Your task to perform on an android device: turn off wifi Image 0: 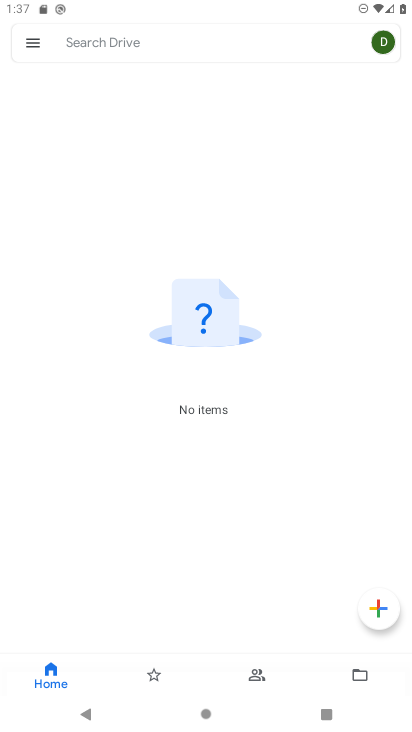
Step 0: press home button
Your task to perform on an android device: turn off wifi Image 1: 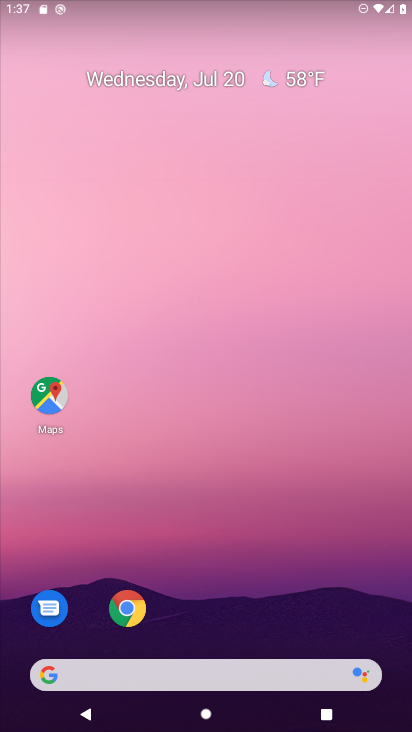
Step 1: drag from (183, 577) to (176, 198)
Your task to perform on an android device: turn off wifi Image 2: 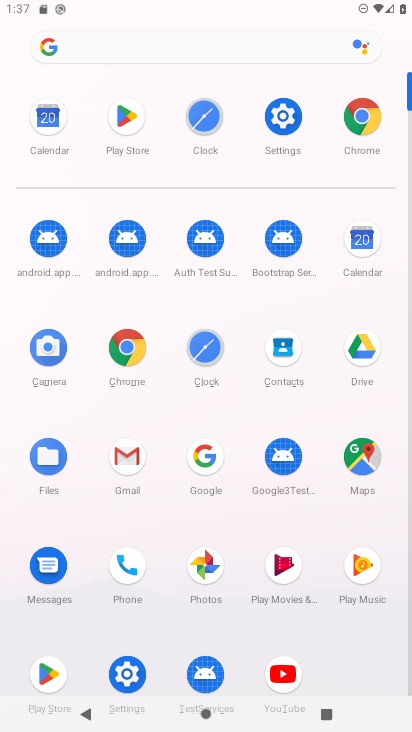
Step 2: click (286, 121)
Your task to perform on an android device: turn off wifi Image 3: 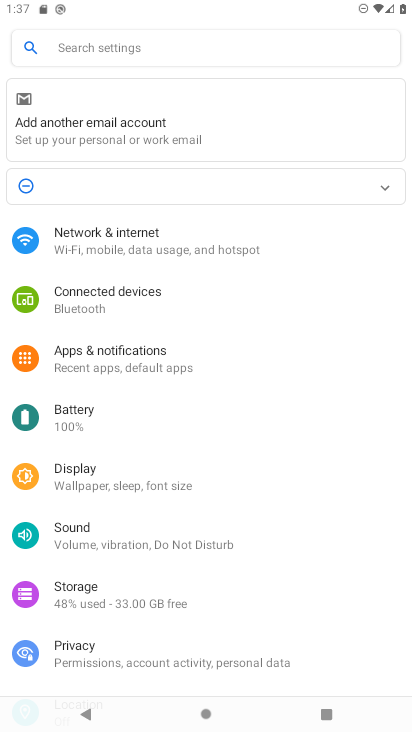
Step 3: click (108, 244)
Your task to perform on an android device: turn off wifi Image 4: 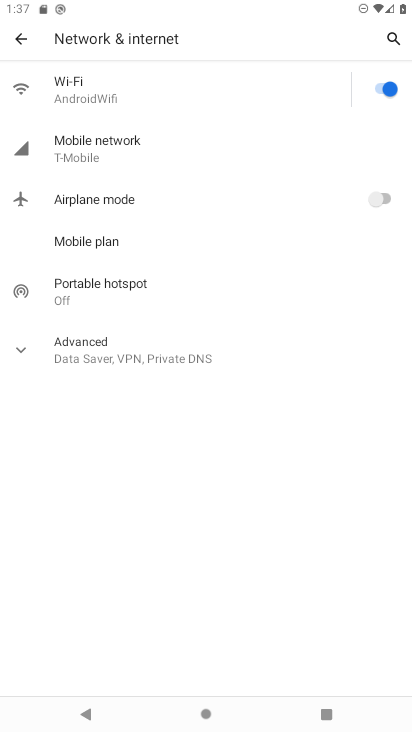
Step 4: click (378, 83)
Your task to perform on an android device: turn off wifi Image 5: 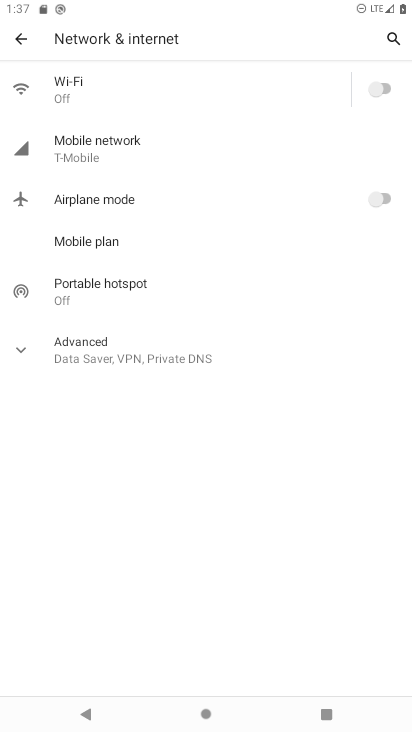
Step 5: task complete